Your task to perform on an android device: check android version Image 0: 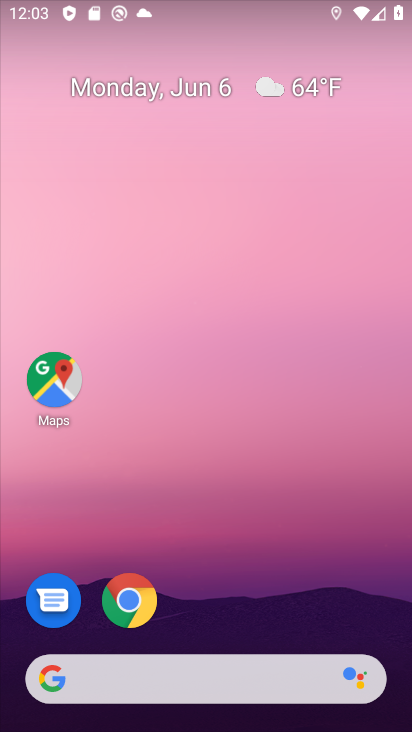
Step 0: drag from (398, 714) to (378, 106)
Your task to perform on an android device: check android version Image 1: 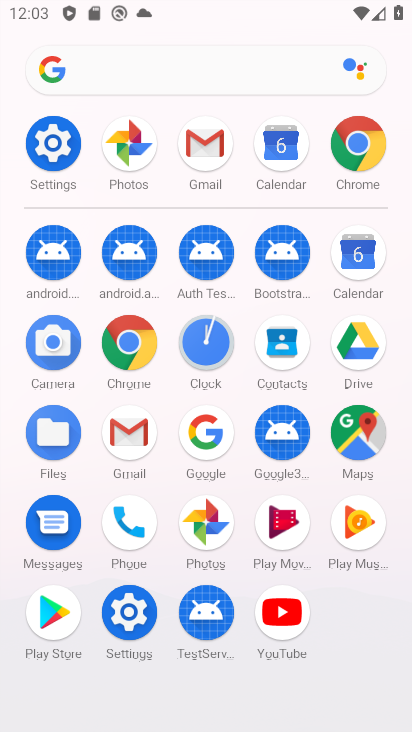
Step 1: click (51, 137)
Your task to perform on an android device: check android version Image 2: 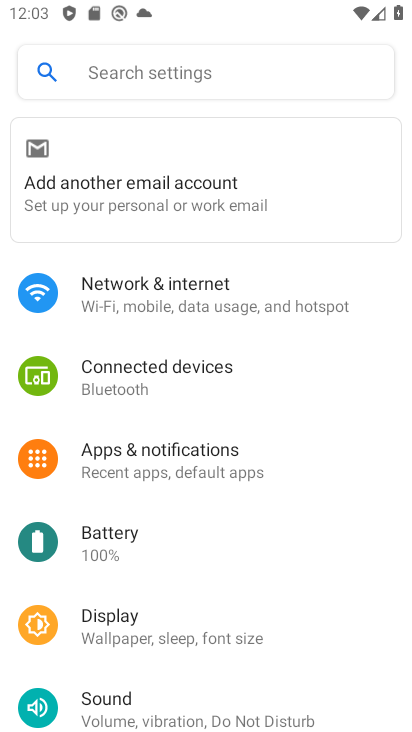
Step 2: drag from (316, 691) to (308, 169)
Your task to perform on an android device: check android version Image 3: 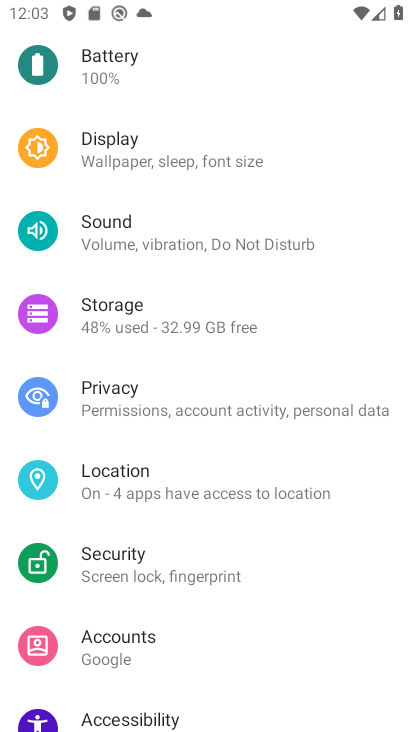
Step 3: drag from (329, 650) to (301, 169)
Your task to perform on an android device: check android version Image 4: 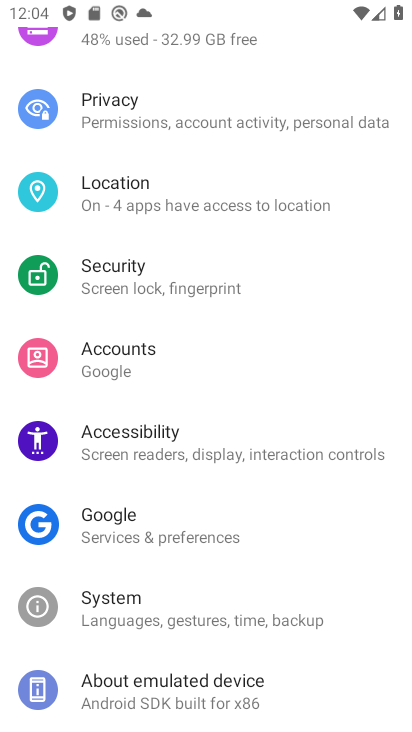
Step 4: click (144, 689)
Your task to perform on an android device: check android version Image 5: 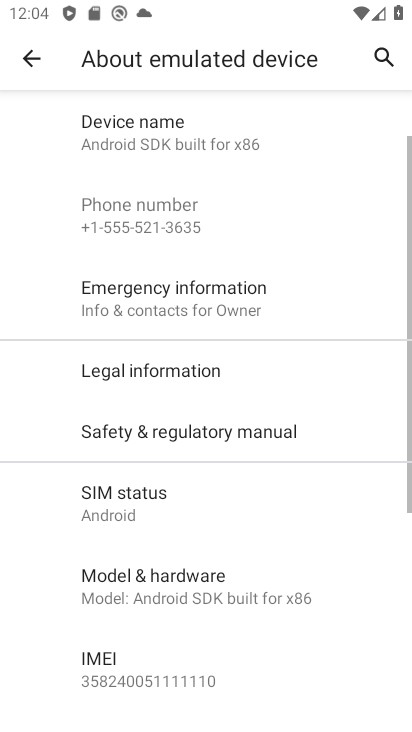
Step 5: drag from (322, 684) to (334, 186)
Your task to perform on an android device: check android version Image 6: 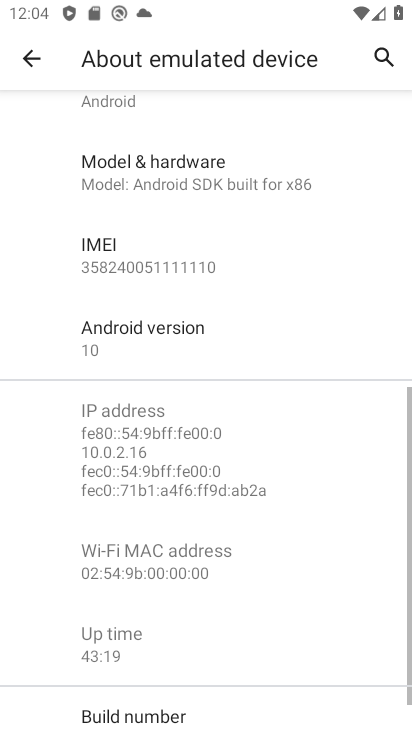
Step 6: drag from (304, 630) to (297, 242)
Your task to perform on an android device: check android version Image 7: 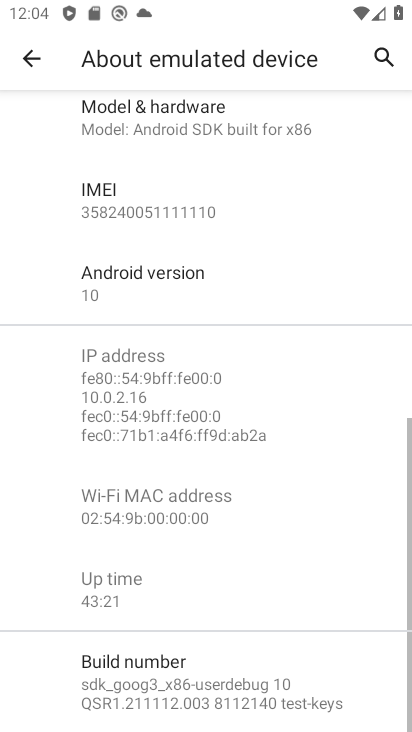
Step 7: click (134, 278)
Your task to perform on an android device: check android version Image 8: 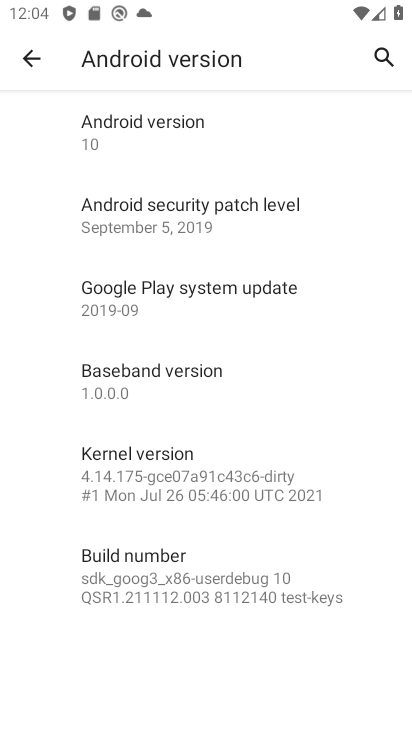
Step 8: task complete